Your task to perform on an android device: add a contact Image 0: 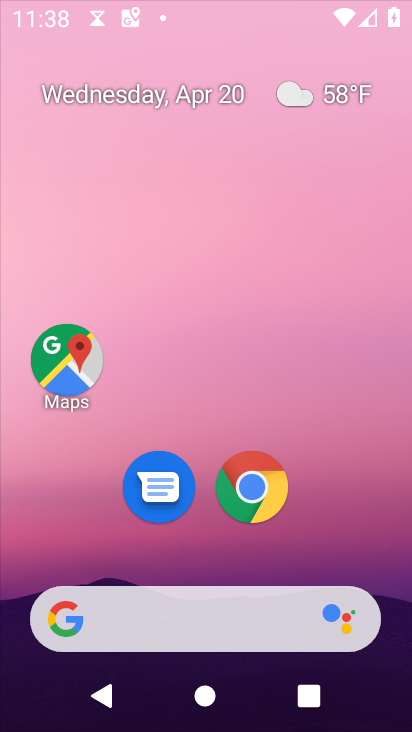
Step 0: click (242, 5)
Your task to perform on an android device: add a contact Image 1: 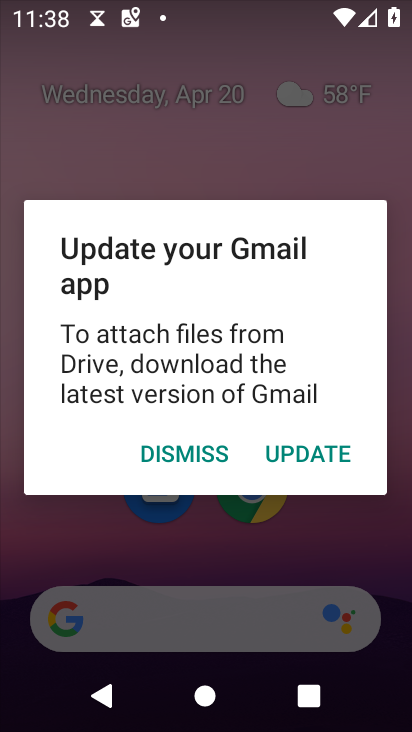
Step 1: press back button
Your task to perform on an android device: add a contact Image 2: 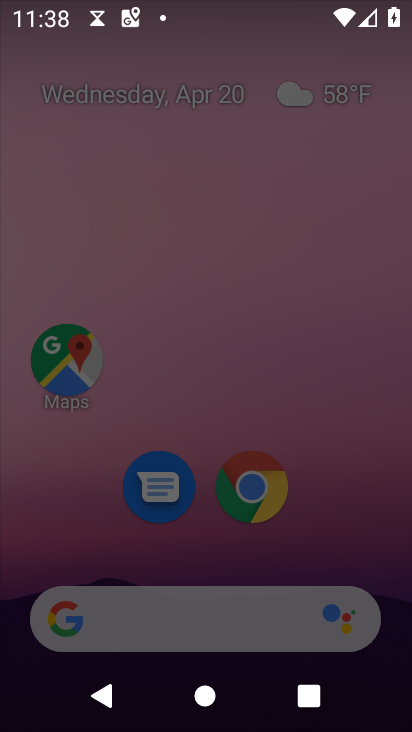
Step 2: press back button
Your task to perform on an android device: add a contact Image 3: 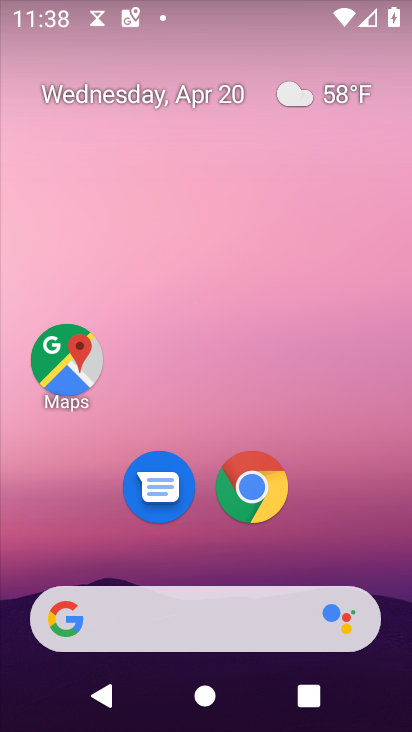
Step 3: drag from (346, 531) to (171, 16)
Your task to perform on an android device: add a contact Image 4: 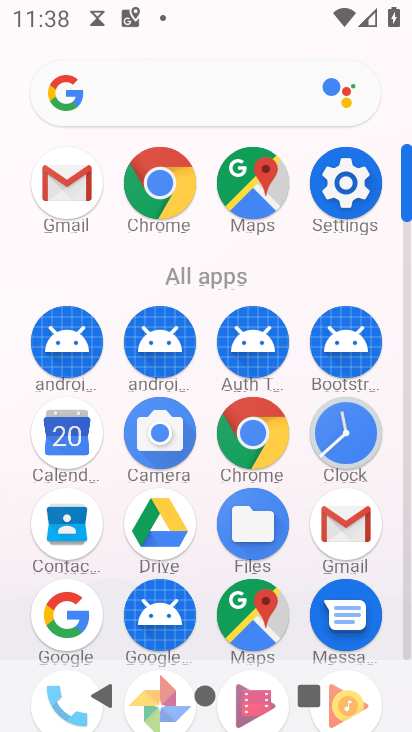
Step 4: drag from (28, 502) to (5, 279)
Your task to perform on an android device: add a contact Image 5: 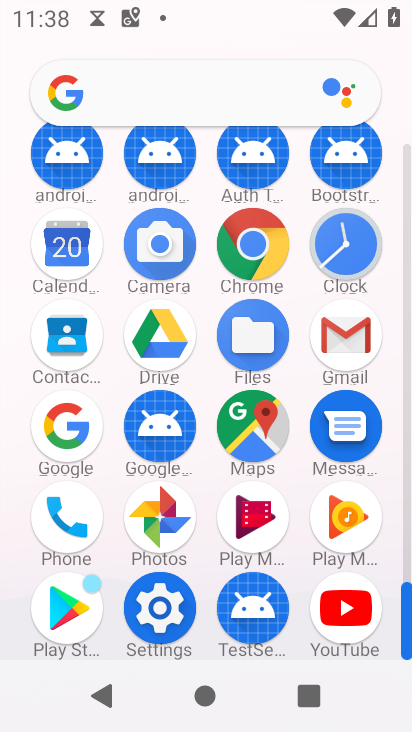
Step 5: click (58, 320)
Your task to perform on an android device: add a contact Image 6: 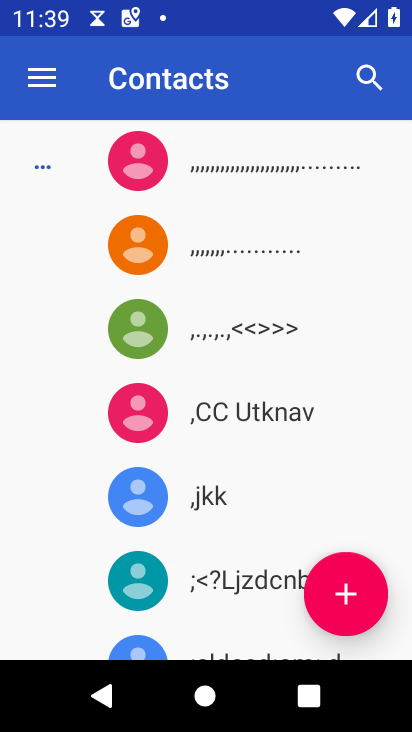
Step 6: click (326, 600)
Your task to perform on an android device: add a contact Image 7: 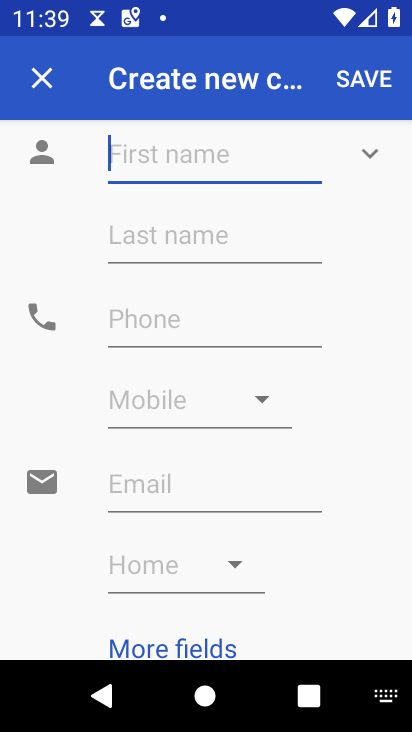
Step 7: type "Lhjghg"
Your task to perform on an android device: add a contact Image 8: 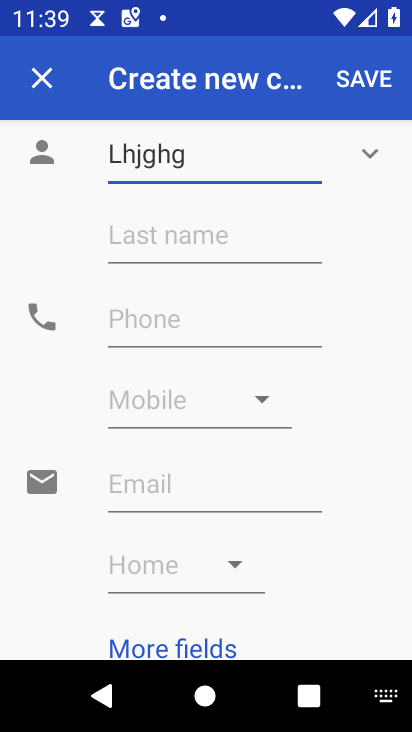
Step 8: click (194, 321)
Your task to perform on an android device: add a contact Image 9: 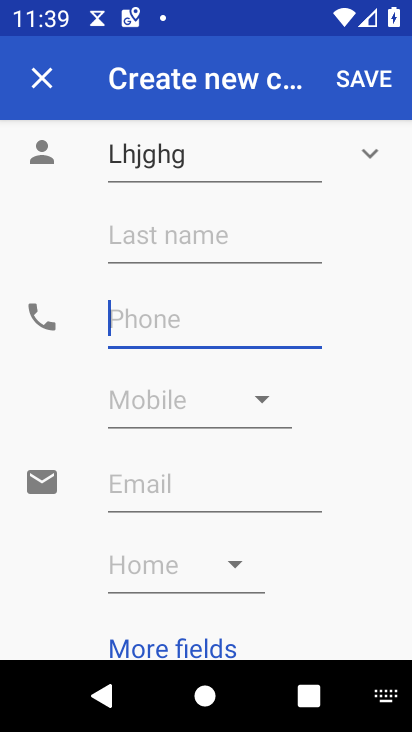
Step 9: type "677665645"
Your task to perform on an android device: add a contact Image 10: 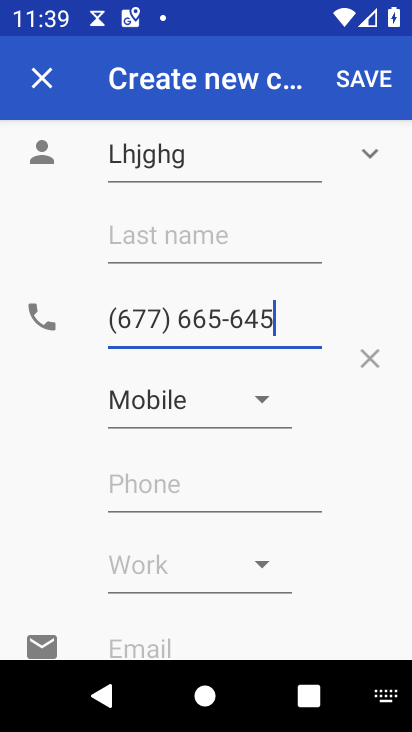
Step 10: click (360, 75)
Your task to perform on an android device: add a contact Image 11: 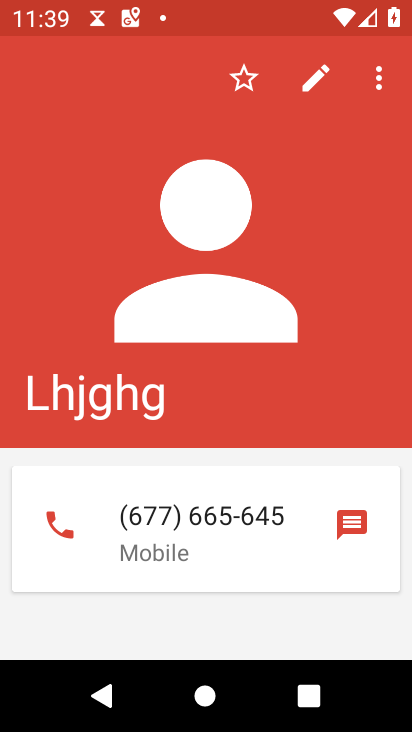
Step 11: task complete